Your task to perform on an android device: Open the stopwatch Image 0: 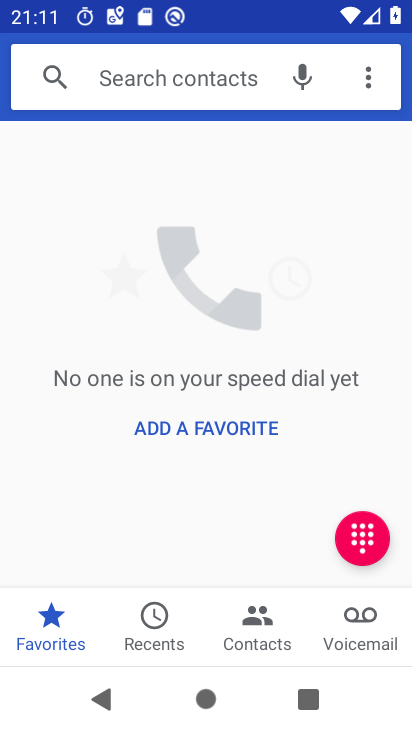
Step 0: press home button
Your task to perform on an android device: Open the stopwatch Image 1: 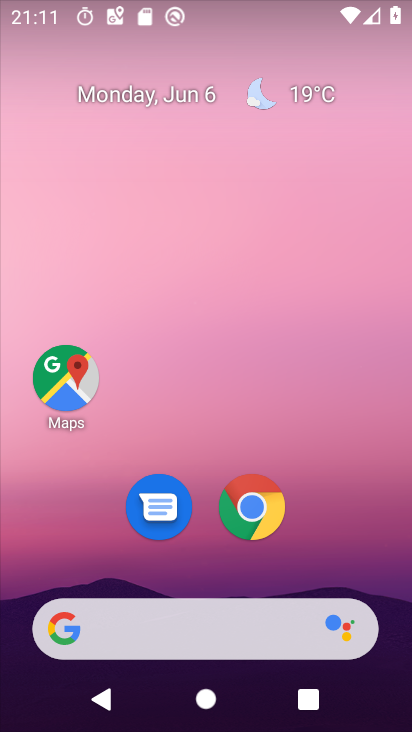
Step 1: drag from (371, 537) to (321, 85)
Your task to perform on an android device: Open the stopwatch Image 2: 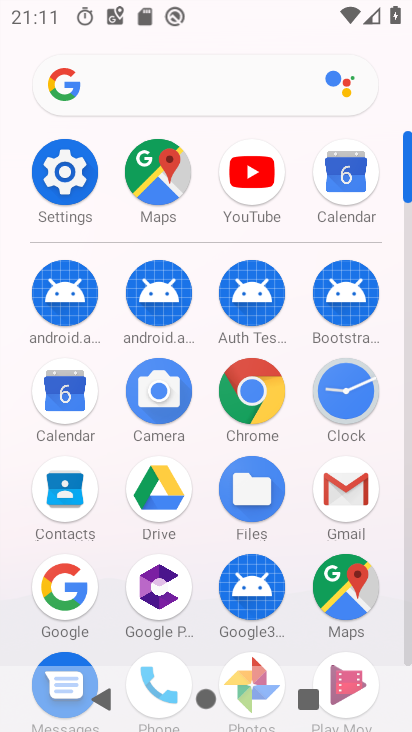
Step 2: click (355, 386)
Your task to perform on an android device: Open the stopwatch Image 3: 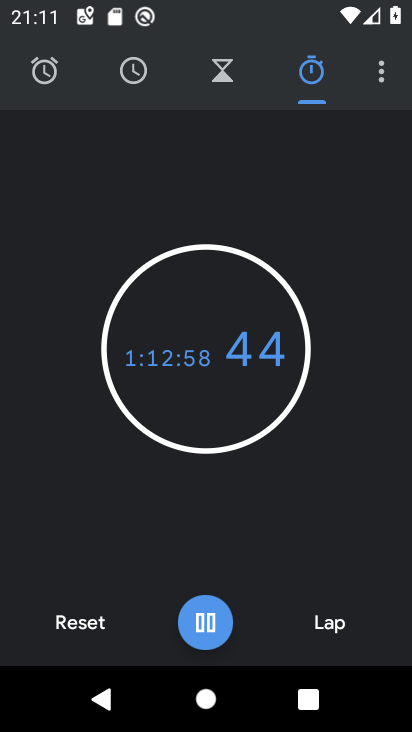
Step 3: task complete